Your task to perform on an android device: Do I have any events tomorrow? Image 0: 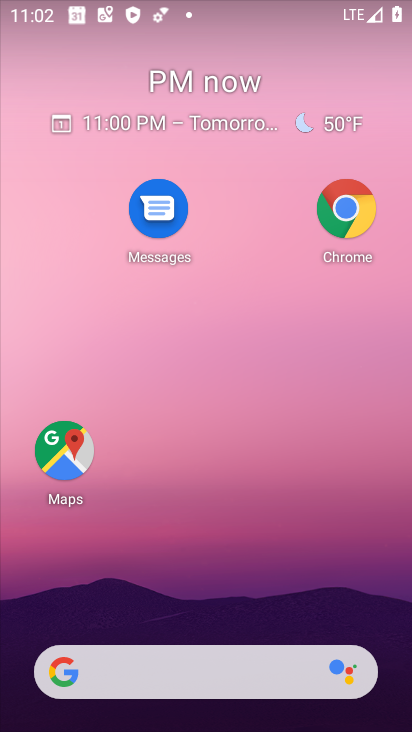
Step 0: drag from (215, 618) to (153, 14)
Your task to perform on an android device: Do I have any events tomorrow? Image 1: 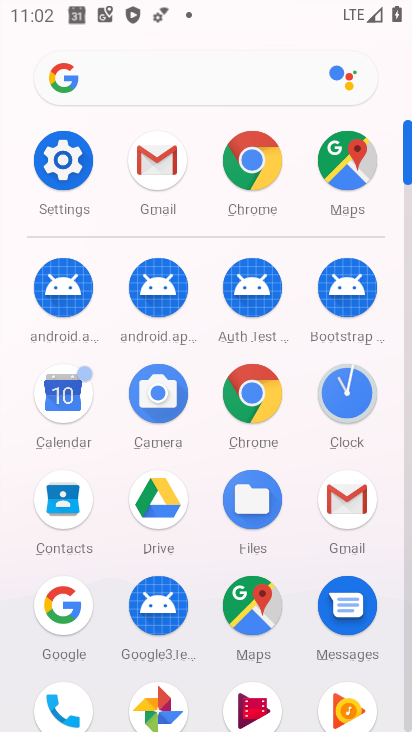
Step 1: click (65, 395)
Your task to perform on an android device: Do I have any events tomorrow? Image 2: 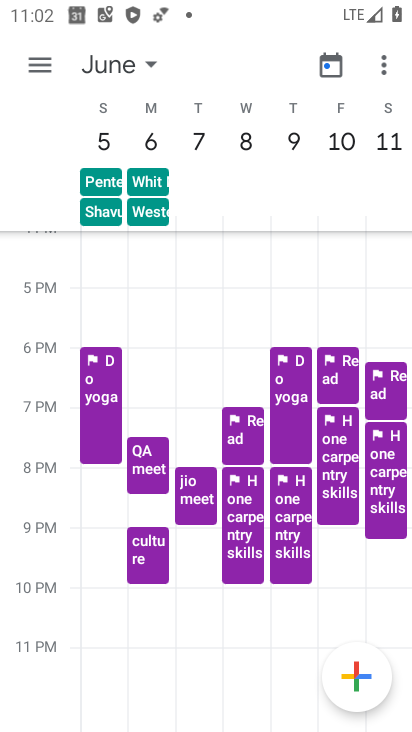
Step 2: click (315, 59)
Your task to perform on an android device: Do I have any events tomorrow? Image 3: 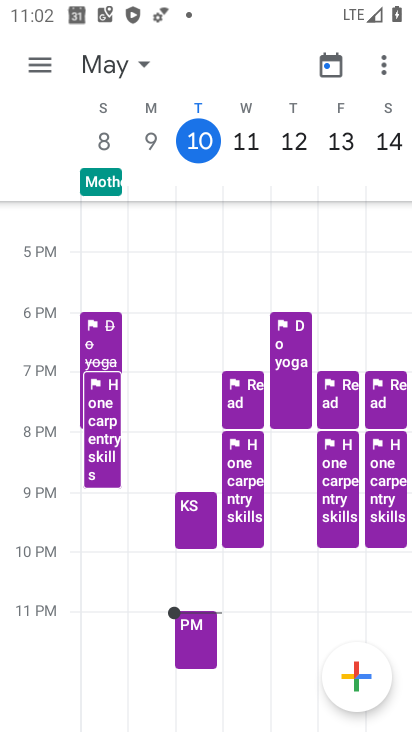
Step 3: click (239, 143)
Your task to perform on an android device: Do I have any events tomorrow? Image 4: 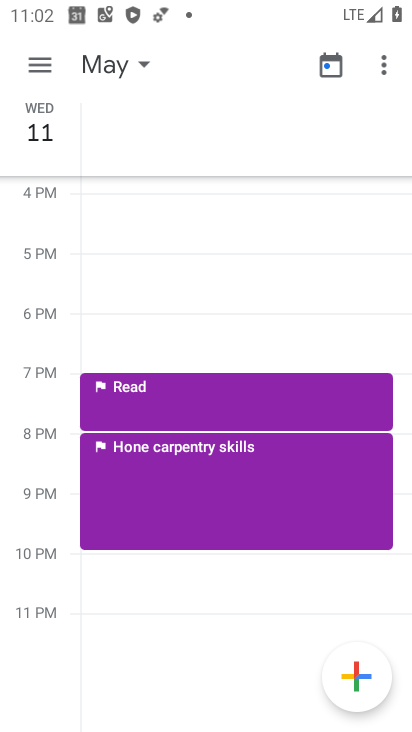
Step 4: task complete